Your task to perform on an android device: see tabs open on other devices in the chrome app Image 0: 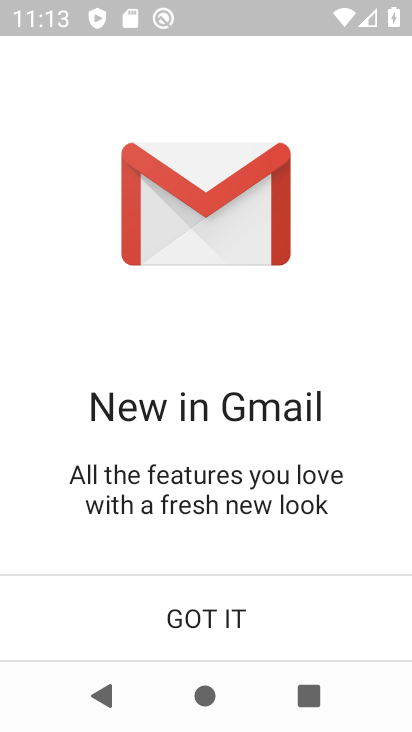
Step 0: press home button
Your task to perform on an android device: see tabs open on other devices in the chrome app Image 1: 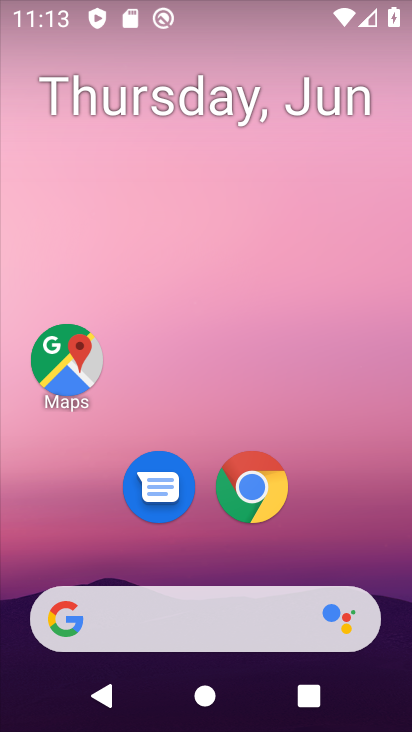
Step 1: click (252, 500)
Your task to perform on an android device: see tabs open on other devices in the chrome app Image 2: 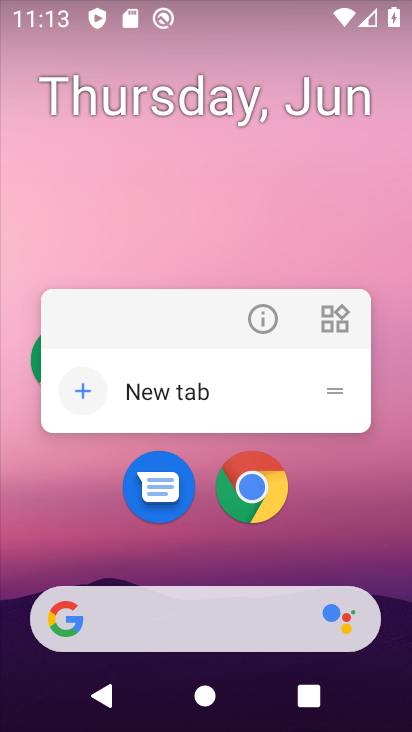
Step 2: click (262, 496)
Your task to perform on an android device: see tabs open on other devices in the chrome app Image 3: 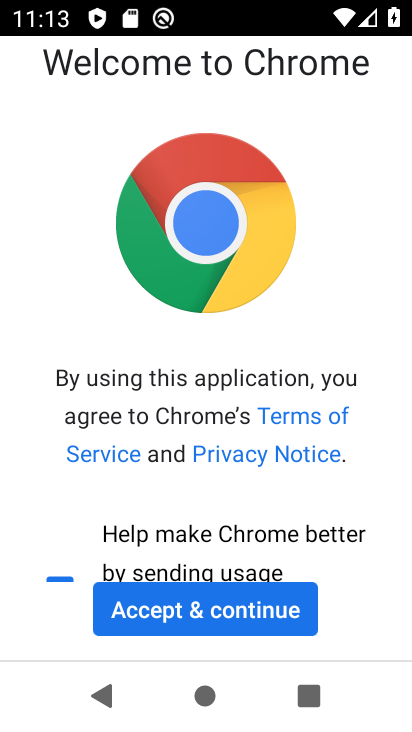
Step 3: click (235, 605)
Your task to perform on an android device: see tabs open on other devices in the chrome app Image 4: 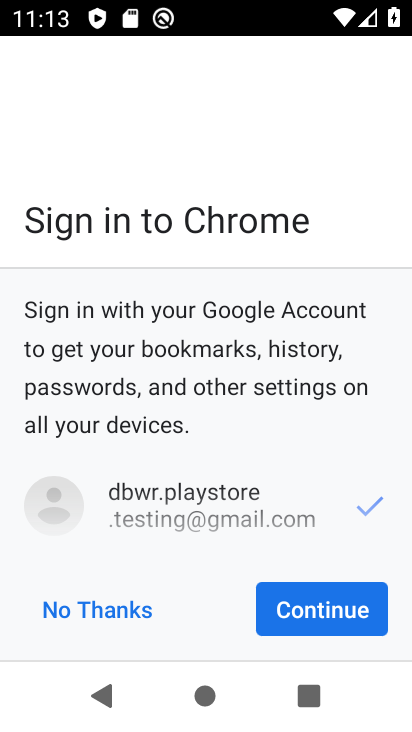
Step 4: click (341, 613)
Your task to perform on an android device: see tabs open on other devices in the chrome app Image 5: 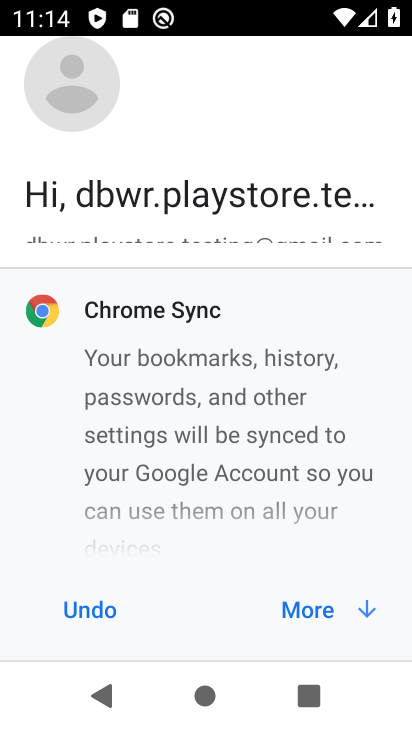
Step 5: click (341, 612)
Your task to perform on an android device: see tabs open on other devices in the chrome app Image 6: 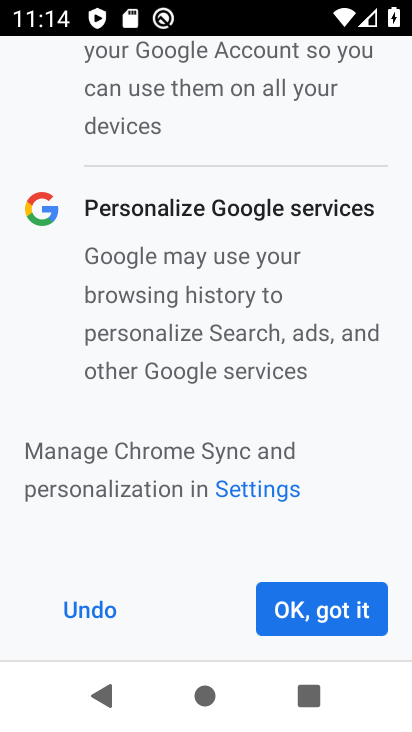
Step 6: click (341, 610)
Your task to perform on an android device: see tabs open on other devices in the chrome app Image 7: 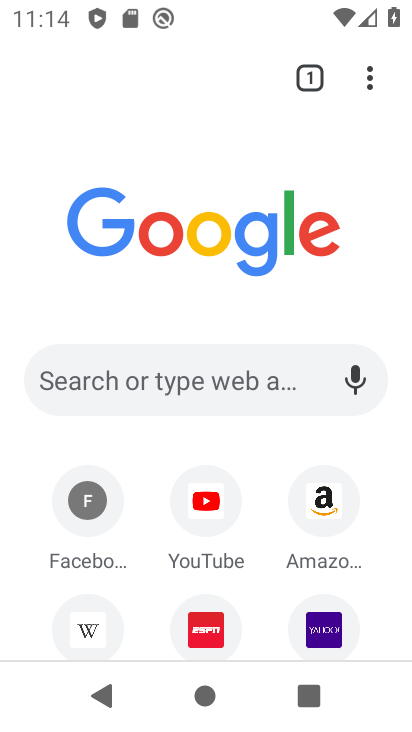
Step 7: task complete